Your task to perform on an android device: clear all cookies in the chrome app Image 0: 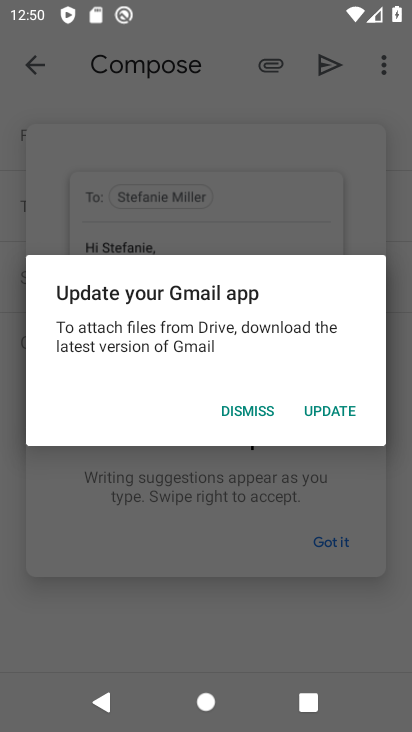
Step 0: press home button
Your task to perform on an android device: clear all cookies in the chrome app Image 1: 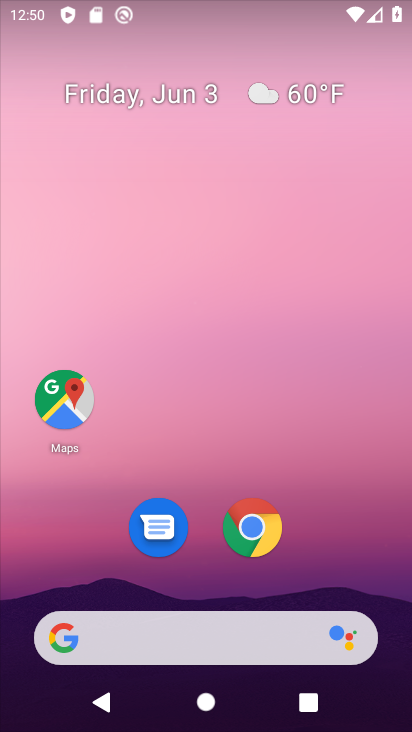
Step 1: click (250, 527)
Your task to perform on an android device: clear all cookies in the chrome app Image 2: 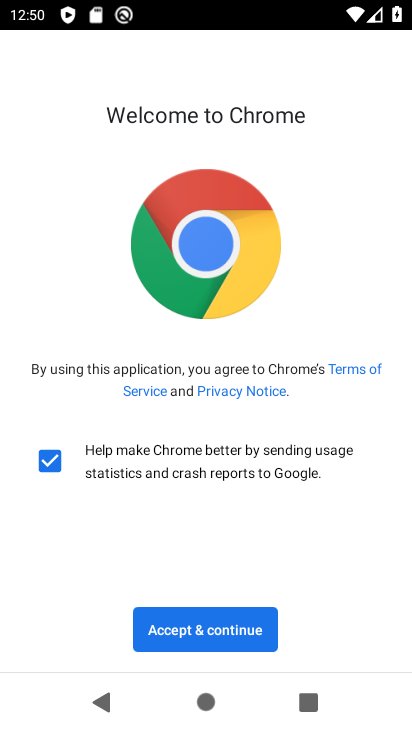
Step 2: click (204, 621)
Your task to perform on an android device: clear all cookies in the chrome app Image 3: 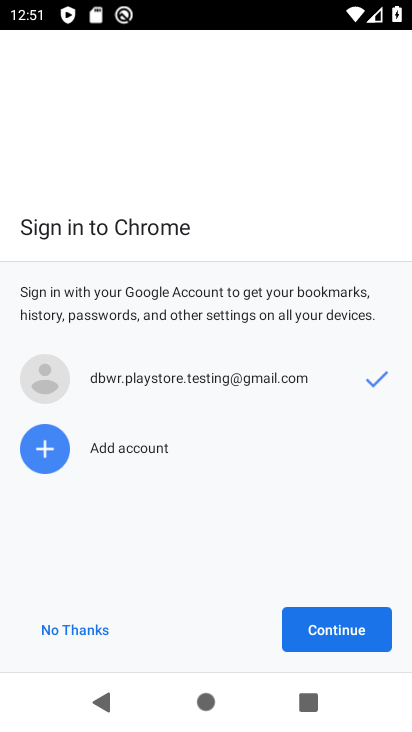
Step 3: click (321, 637)
Your task to perform on an android device: clear all cookies in the chrome app Image 4: 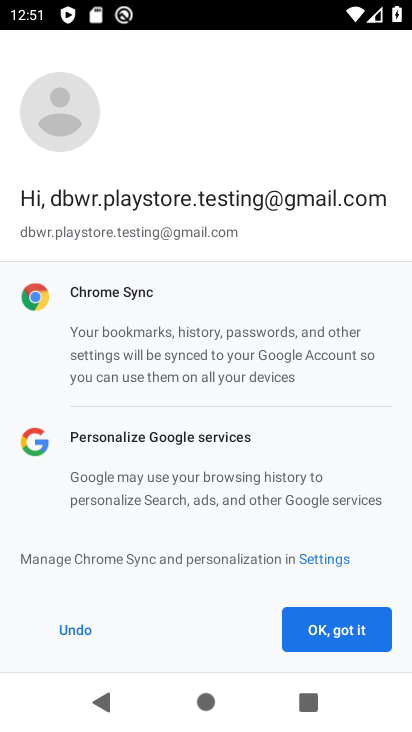
Step 4: click (333, 629)
Your task to perform on an android device: clear all cookies in the chrome app Image 5: 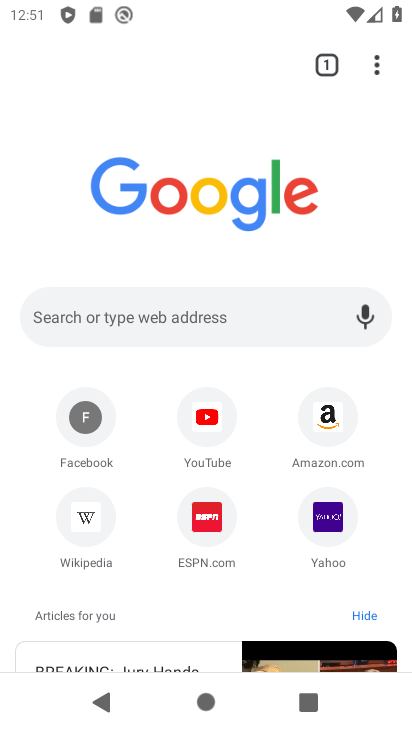
Step 5: click (369, 66)
Your task to perform on an android device: clear all cookies in the chrome app Image 6: 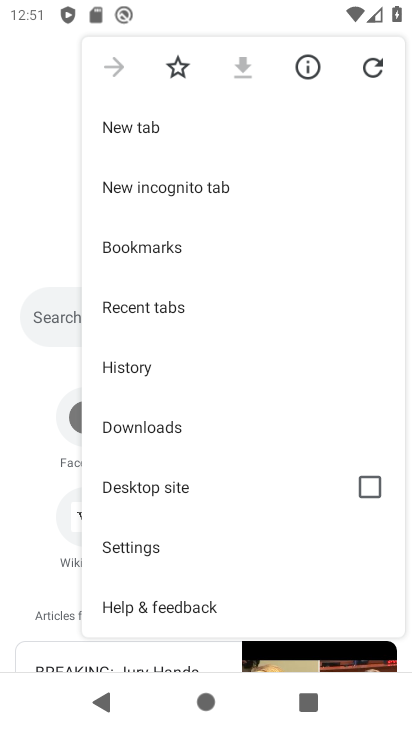
Step 6: click (122, 372)
Your task to perform on an android device: clear all cookies in the chrome app Image 7: 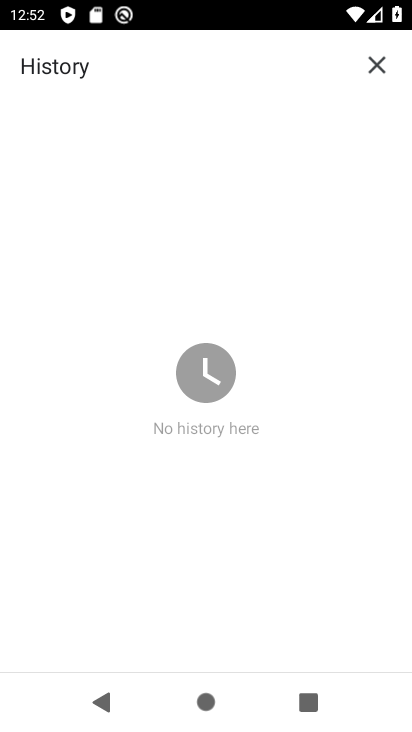
Step 7: task complete